Your task to perform on an android device: Go to Android settings Image 0: 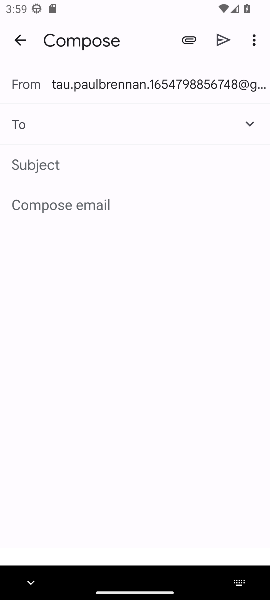
Step 0: press home button
Your task to perform on an android device: Go to Android settings Image 1: 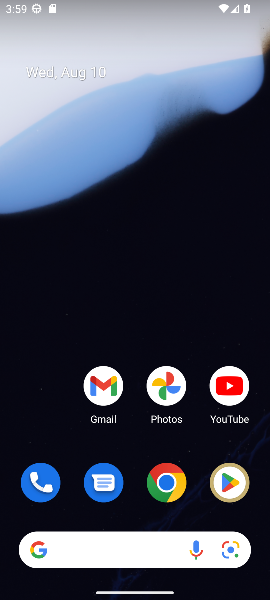
Step 1: drag from (67, 416) to (77, 13)
Your task to perform on an android device: Go to Android settings Image 2: 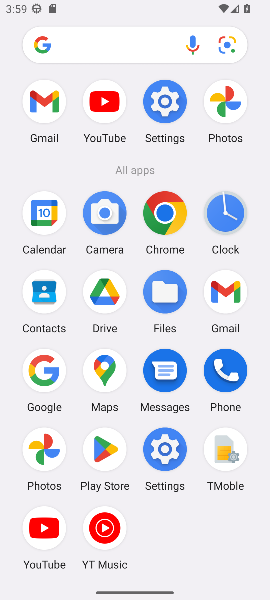
Step 2: click (159, 94)
Your task to perform on an android device: Go to Android settings Image 3: 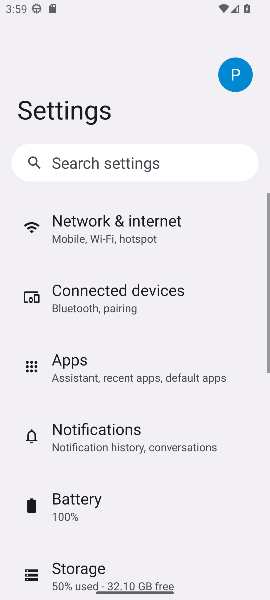
Step 3: drag from (147, 486) to (178, 7)
Your task to perform on an android device: Go to Android settings Image 4: 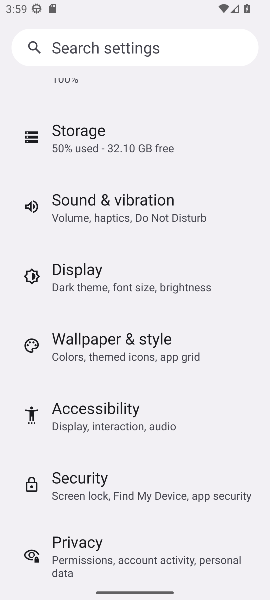
Step 4: drag from (144, 442) to (155, 103)
Your task to perform on an android device: Go to Android settings Image 5: 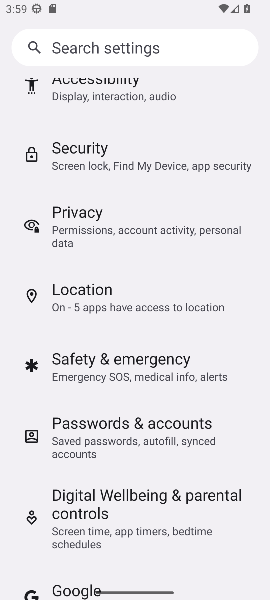
Step 5: drag from (139, 467) to (167, 151)
Your task to perform on an android device: Go to Android settings Image 6: 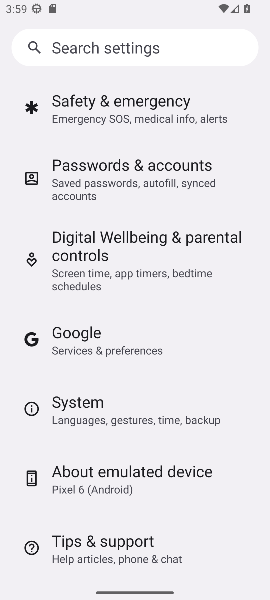
Step 6: click (150, 476)
Your task to perform on an android device: Go to Android settings Image 7: 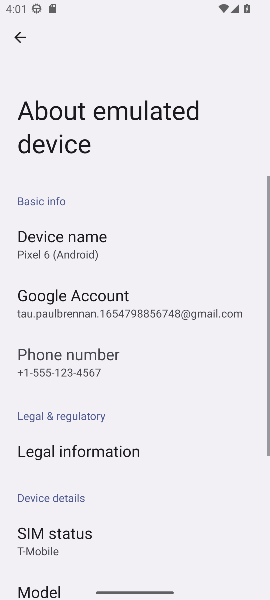
Step 7: task complete